Your task to perform on an android device: Turn off the flashlight Image 0: 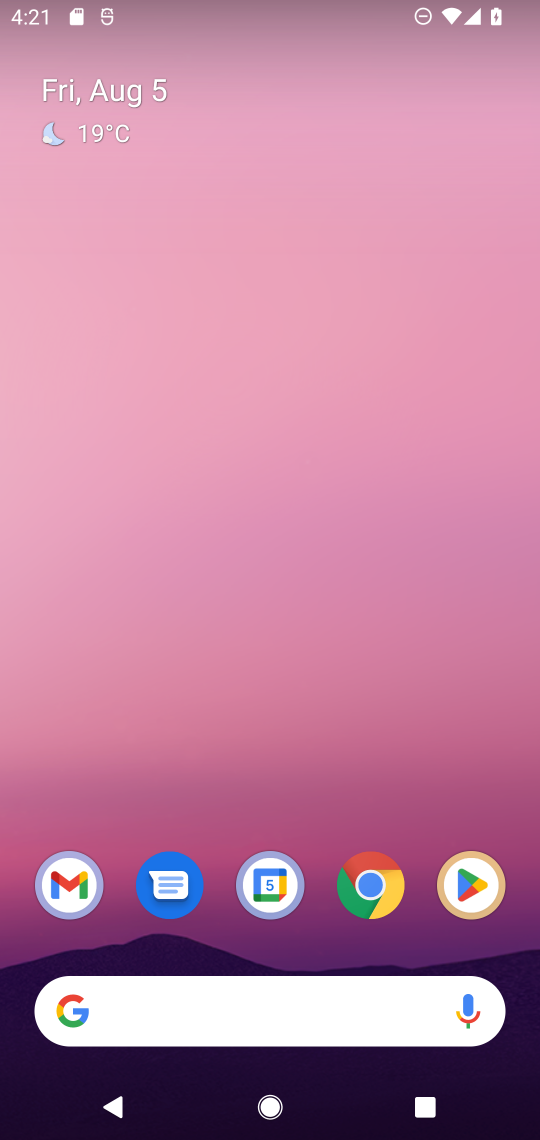
Step 0: drag from (309, 967) to (317, 165)
Your task to perform on an android device: Turn off the flashlight Image 1: 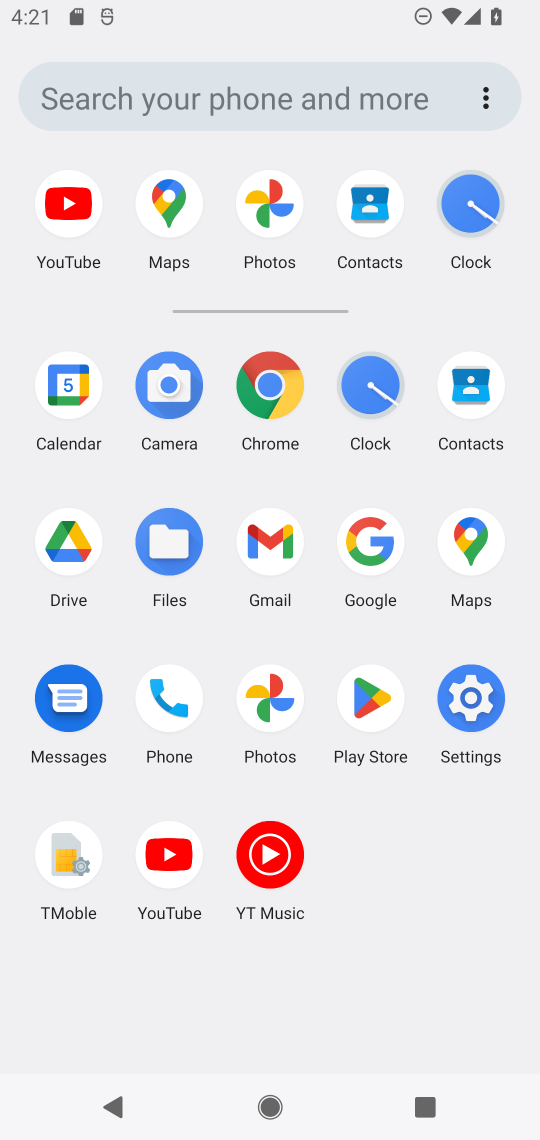
Step 1: click (477, 708)
Your task to perform on an android device: Turn off the flashlight Image 2: 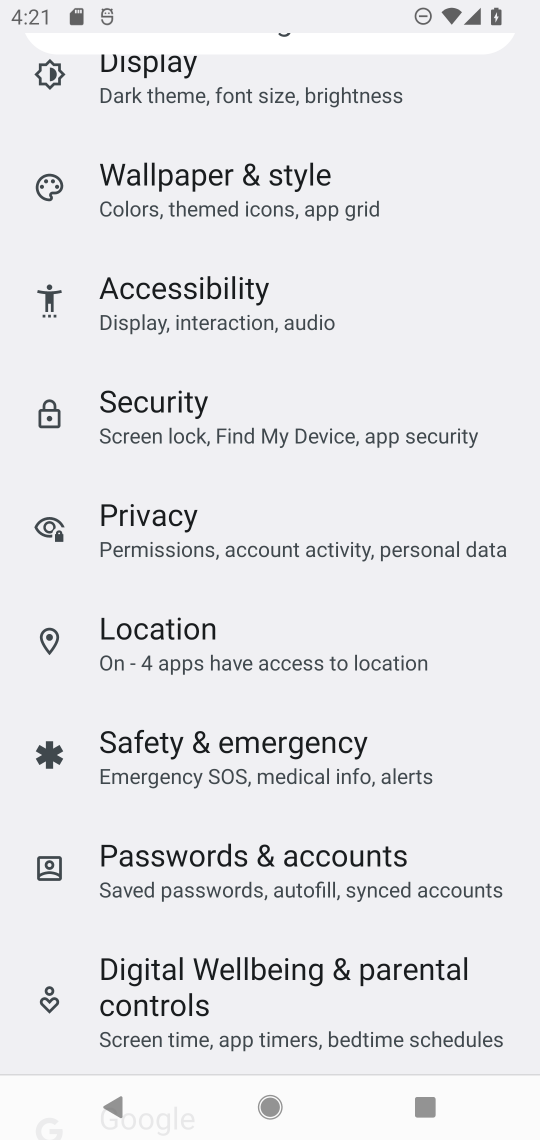
Step 2: task complete